Your task to perform on an android device: turn notification dots on Image 0: 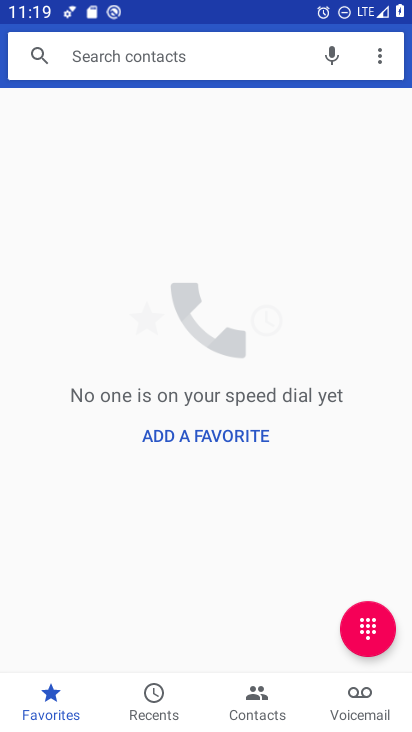
Step 0: press home button
Your task to perform on an android device: turn notification dots on Image 1: 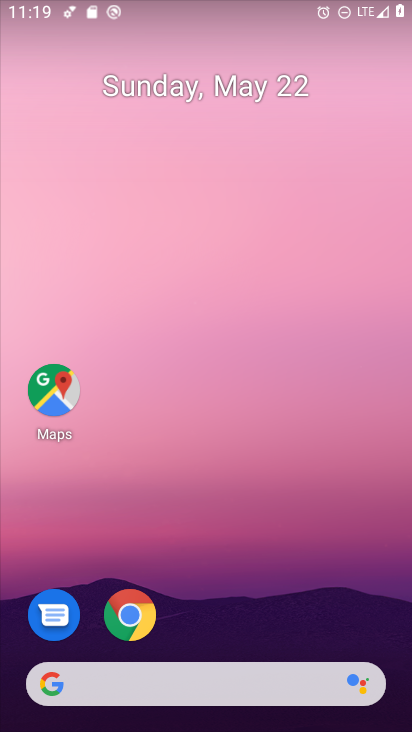
Step 1: drag from (236, 596) to (302, 177)
Your task to perform on an android device: turn notification dots on Image 2: 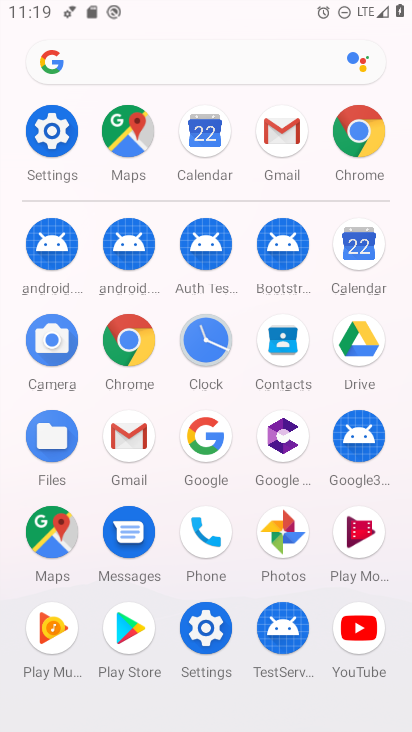
Step 2: click (46, 130)
Your task to perform on an android device: turn notification dots on Image 3: 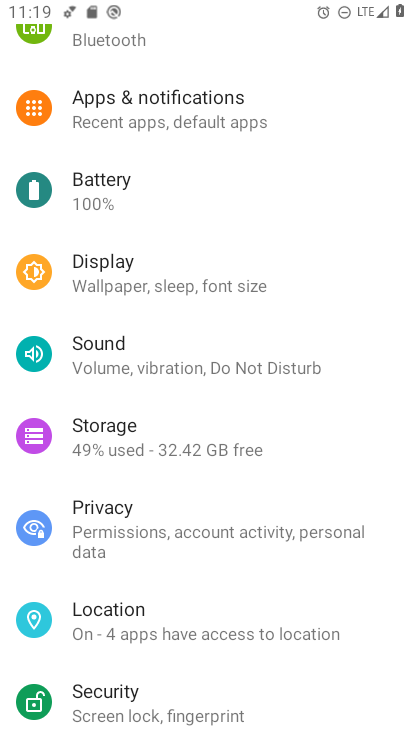
Step 3: click (222, 109)
Your task to perform on an android device: turn notification dots on Image 4: 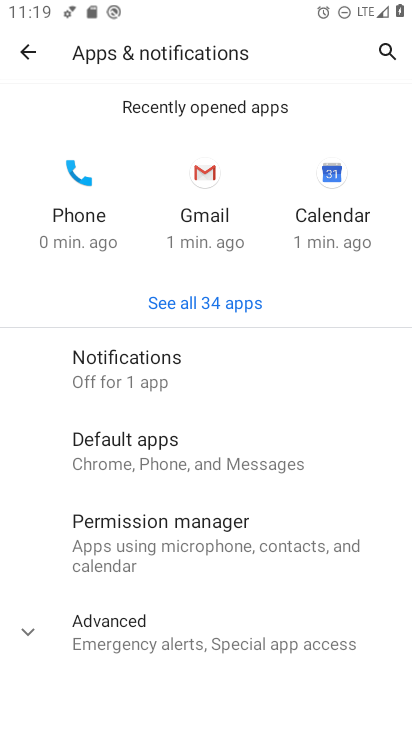
Step 4: click (165, 369)
Your task to perform on an android device: turn notification dots on Image 5: 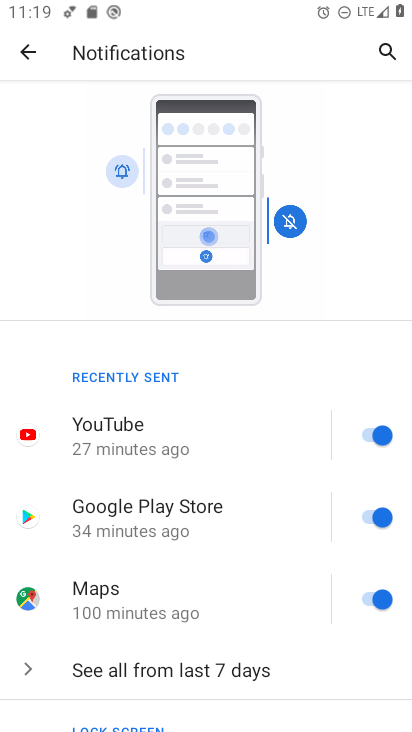
Step 5: drag from (125, 678) to (211, 169)
Your task to perform on an android device: turn notification dots on Image 6: 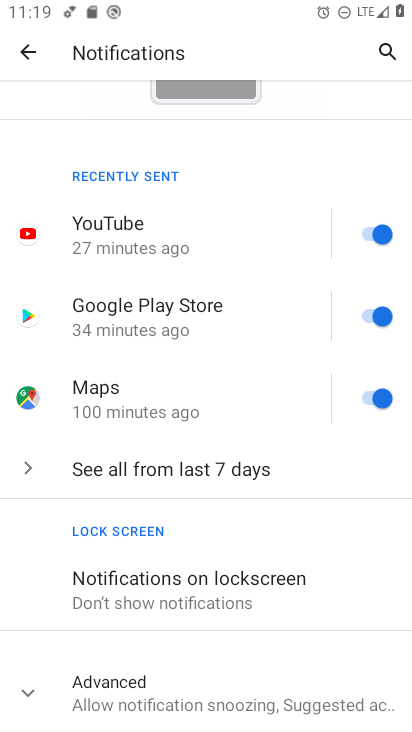
Step 6: click (124, 702)
Your task to perform on an android device: turn notification dots on Image 7: 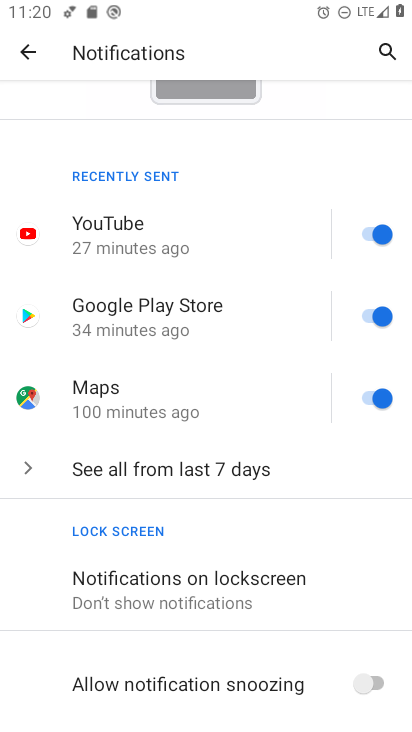
Step 7: drag from (168, 628) to (252, 193)
Your task to perform on an android device: turn notification dots on Image 8: 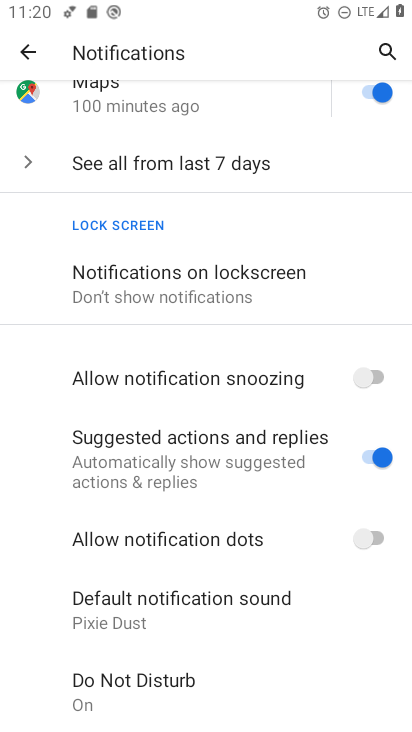
Step 8: click (374, 538)
Your task to perform on an android device: turn notification dots on Image 9: 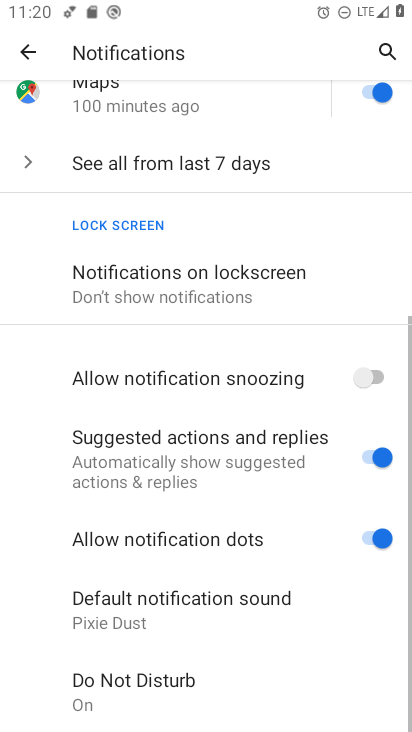
Step 9: task complete